Your task to perform on an android device: delete browsing data in the chrome app Image 0: 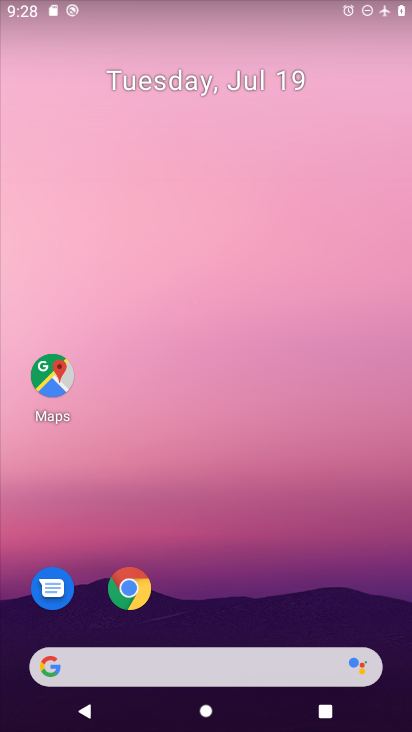
Step 0: drag from (345, 592) to (344, 73)
Your task to perform on an android device: delete browsing data in the chrome app Image 1: 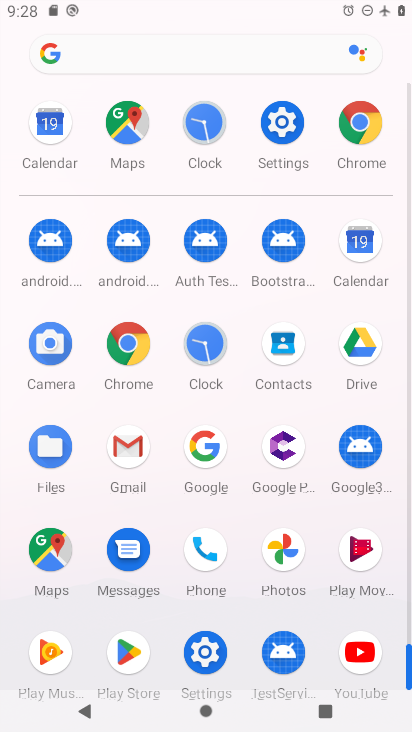
Step 1: click (364, 128)
Your task to perform on an android device: delete browsing data in the chrome app Image 2: 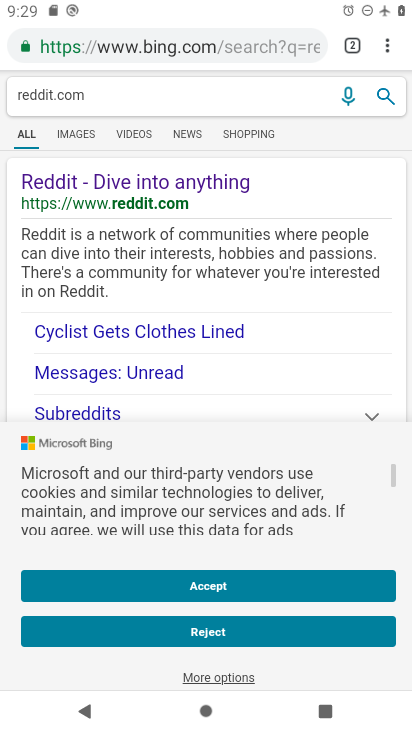
Step 2: click (385, 49)
Your task to perform on an android device: delete browsing data in the chrome app Image 3: 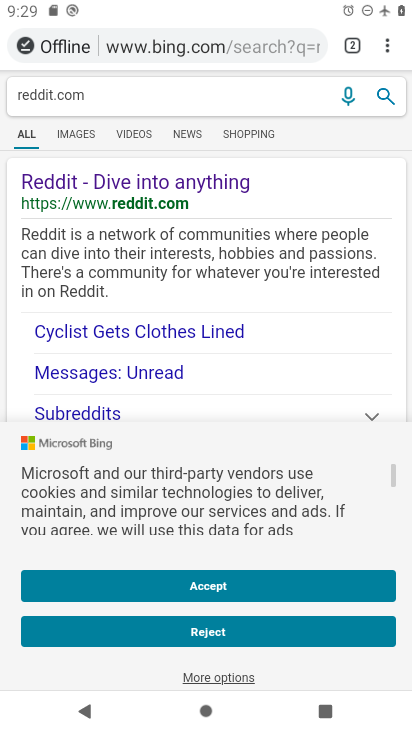
Step 3: click (385, 54)
Your task to perform on an android device: delete browsing data in the chrome app Image 4: 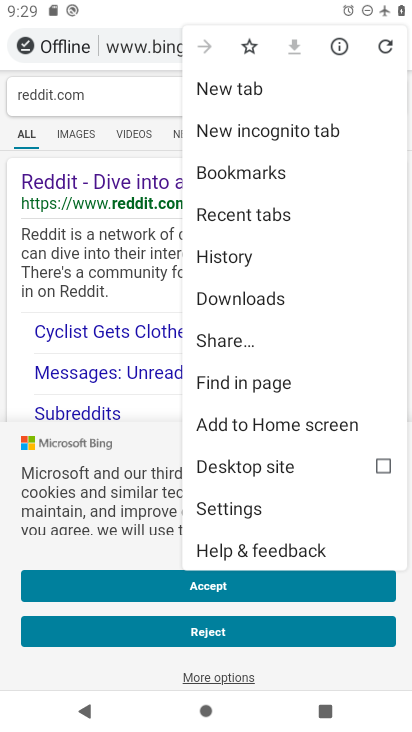
Step 4: click (303, 510)
Your task to perform on an android device: delete browsing data in the chrome app Image 5: 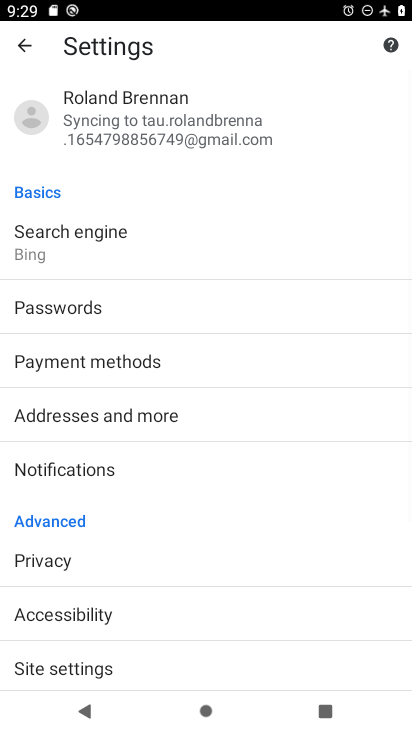
Step 5: drag from (303, 530) to (311, 385)
Your task to perform on an android device: delete browsing data in the chrome app Image 6: 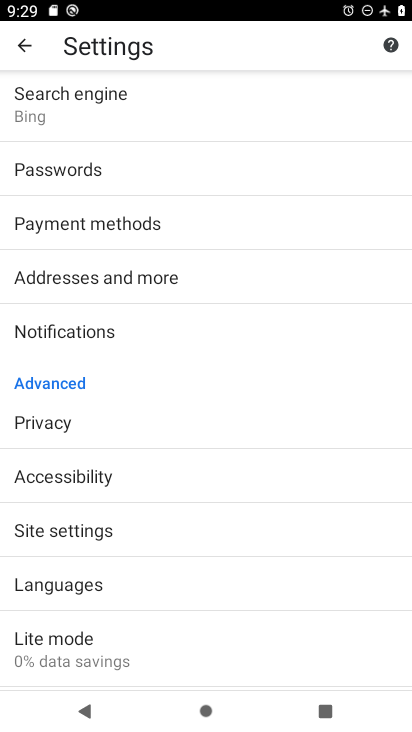
Step 6: drag from (320, 535) to (319, 400)
Your task to perform on an android device: delete browsing data in the chrome app Image 7: 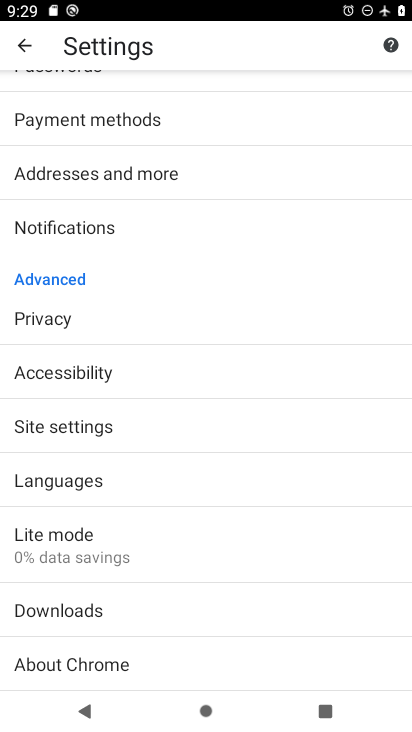
Step 7: click (165, 331)
Your task to perform on an android device: delete browsing data in the chrome app Image 8: 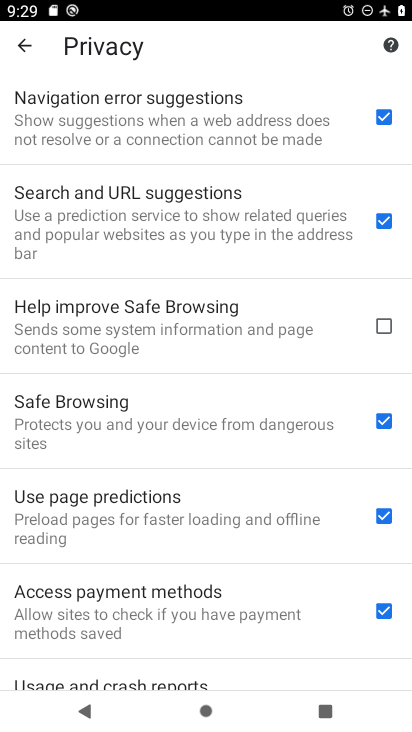
Step 8: drag from (332, 576) to (338, 455)
Your task to perform on an android device: delete browsing data in the chrome app Image 9: 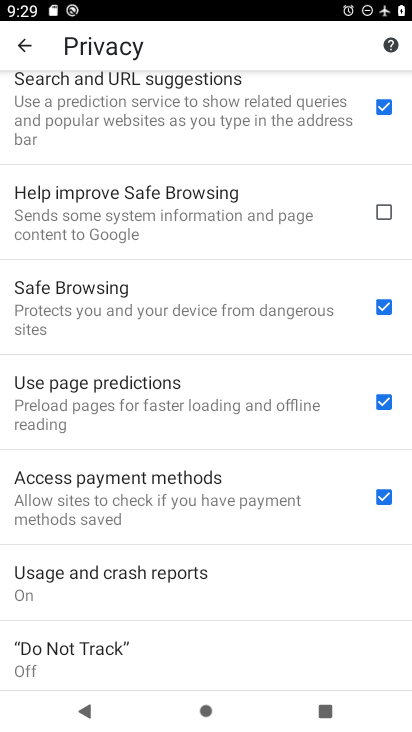
Step 9: drag from (319, 594) to (329, 475)
Your task to perform on an android device: delete browsing data in the chrome app Image 10: 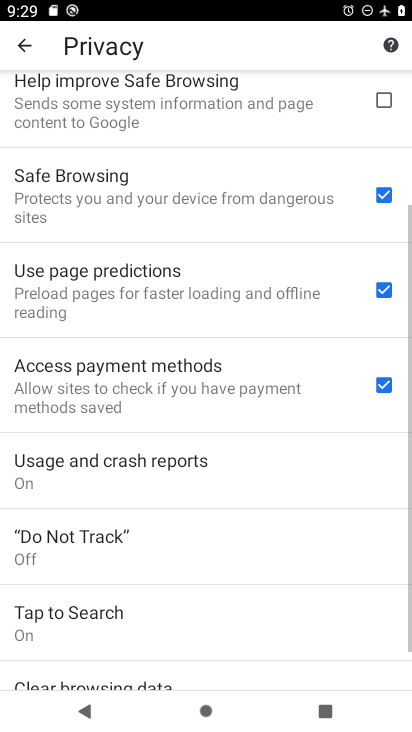
Step 10: drag from (310, 603) to (310, 465)
Your task to perform on an android device: delete browsing data in the chrome app Image 11: 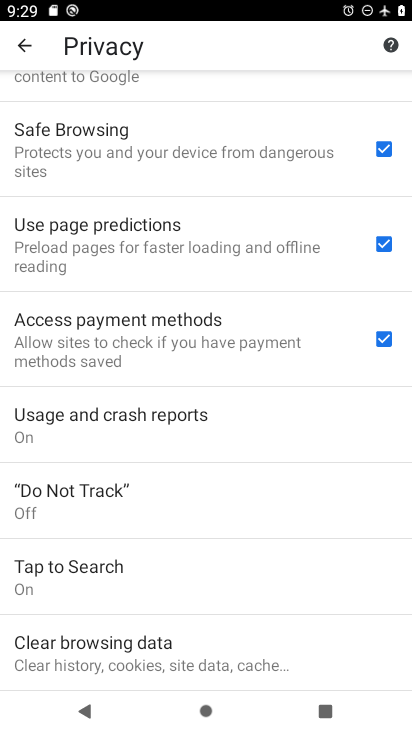
Step 11: click (299, 629)
Your task to perform on an android device: delete browsing data in the chrome app Image 12: 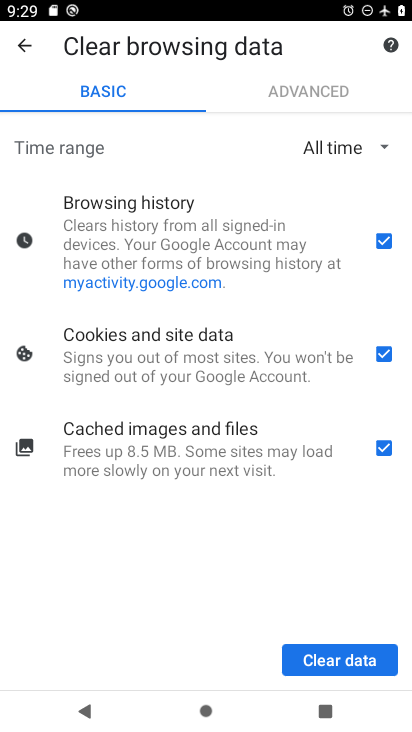
Step 12: click (316, 649)
Your task to perform on an android device: delete browsing data in the chrome app Image 13: 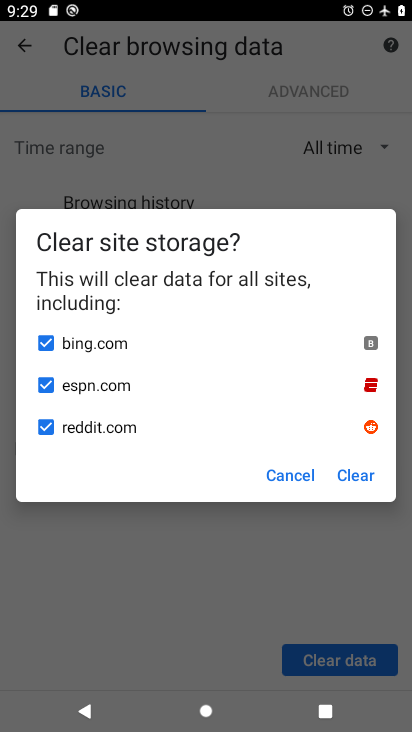
Step 13: click (362, 465)
Your task to perform on an android device: delete browsing data in the chrome app Image 14: 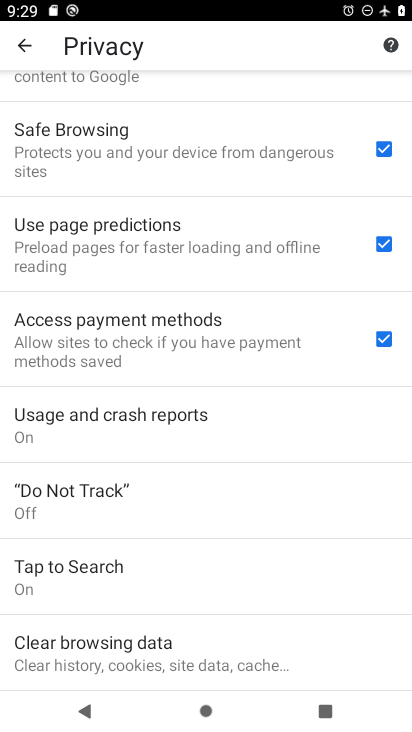
Step 14: task complete